Your task to perform on an android device: Open Google Chrome Image 0: 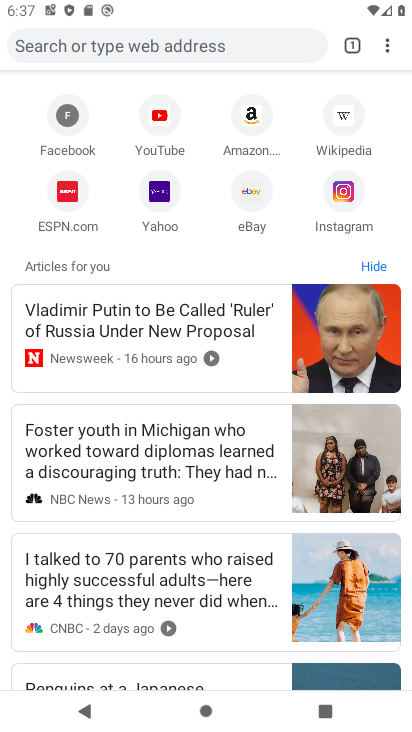
Step 0: press home button
Your task to perform on an android device: Open Google Chrome Image 1: 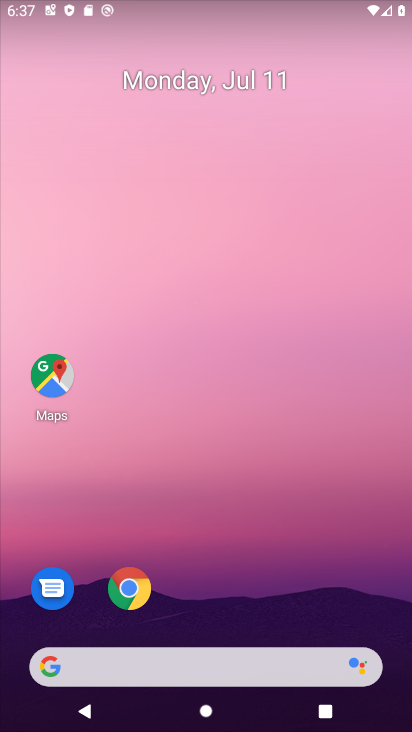
Step 1: drag from (400, 643) to (230, 34)
Your task to perform on an android device: Open Google Chrome Image 2: 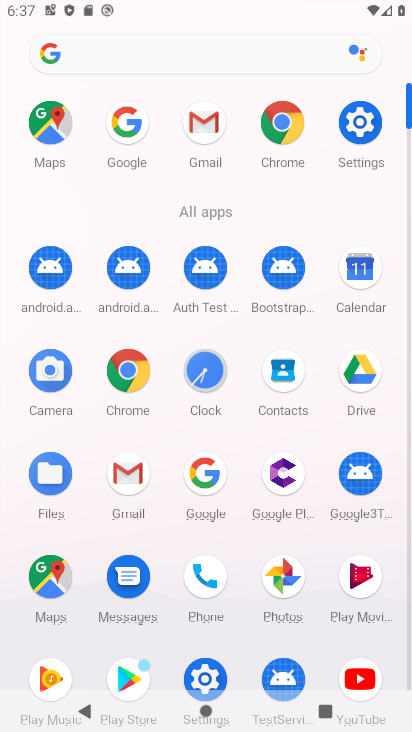
Step 2: click (277, 119)
Your task to perform on an android device: Open Google Chrome Image 3: 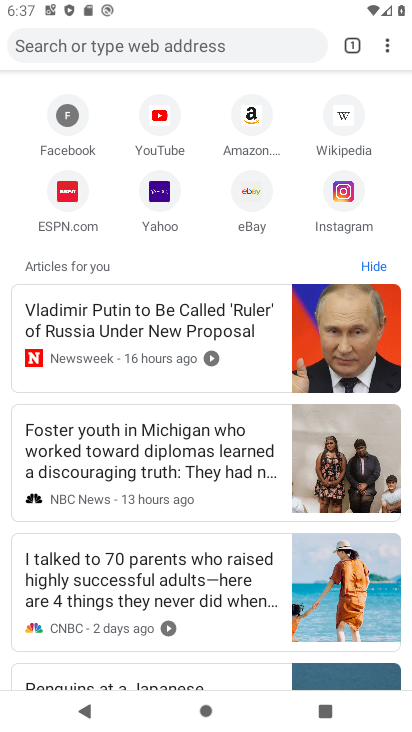
Step 3: task complete